Your task to perform on an android device: change the clock display to digital Image 0: 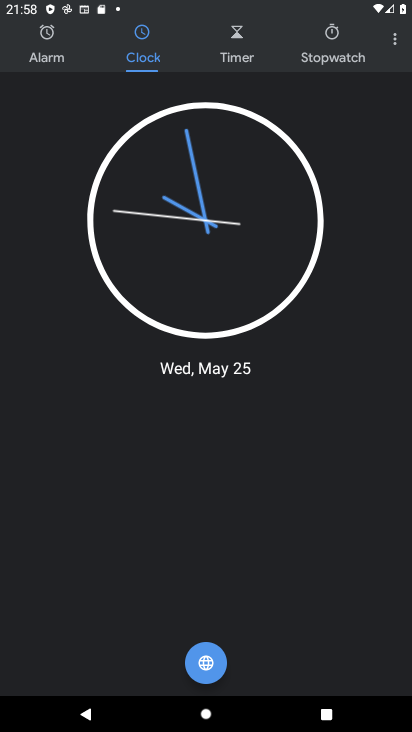
Step 0: press home button
Your task to perform on an android device: change the clock display to digital Image 1: 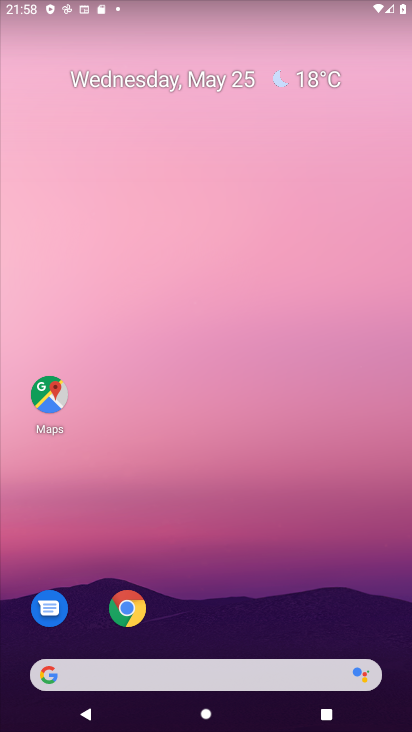
Step 1: drag from (295, 531) to (235, 1)
Your task to perform on an android device: change the clock display to digital Image 2: 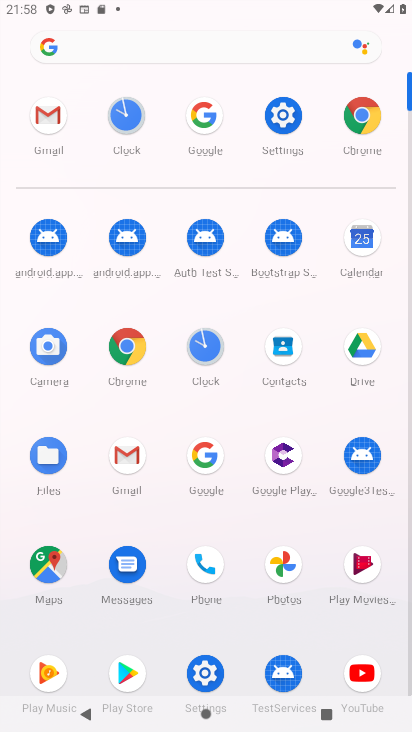
Step 2: click (221, 347)
Your task to perform on an android device: change the clock display to digital Image 3: 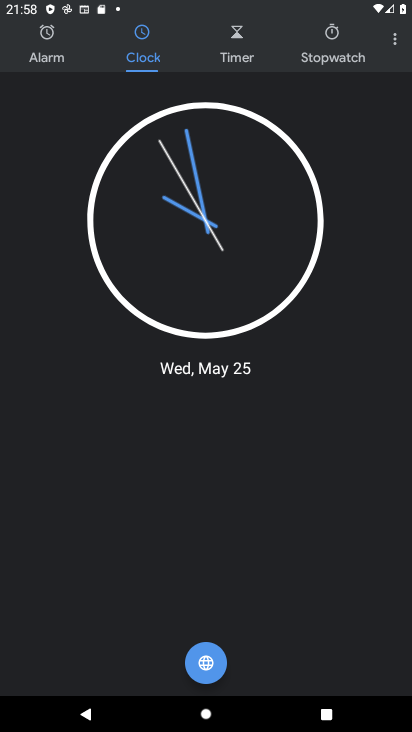
Step 3: click (393, 36)
Your task to perform on an android device: change the clock display to digital Image 4: 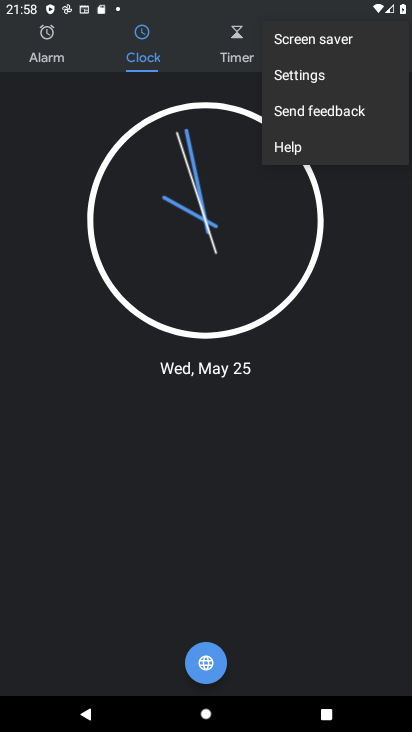
Step 4: click (321, 64)
Your task to perform on an android device: change the clock display to digital Image 5: 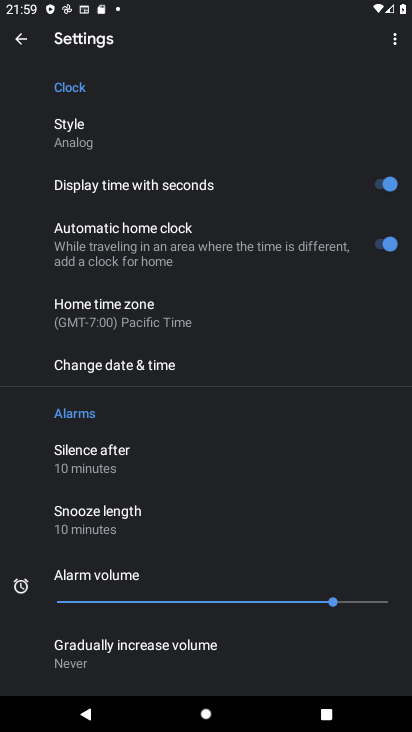
Step 5: click (74, 124)
Your task to perform on an android device: change the clock display to digital Image 6: 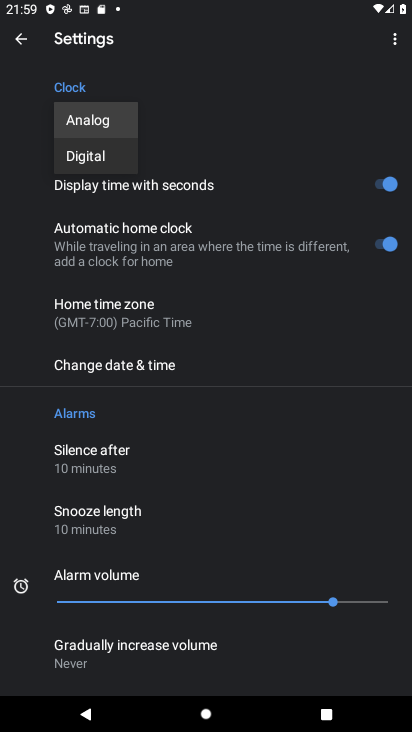
Step 6: click (123, 148)
Your task to perform on an android device: change the clock display to digital Image 7: 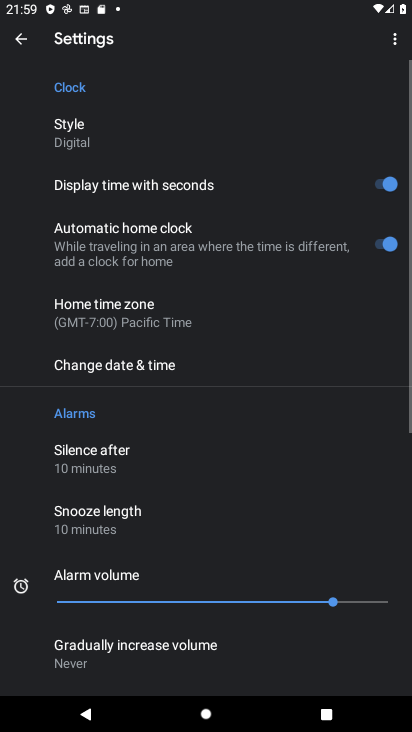
Step 7: task complete